Your task to perform on an android device: Open display settings Image 0: 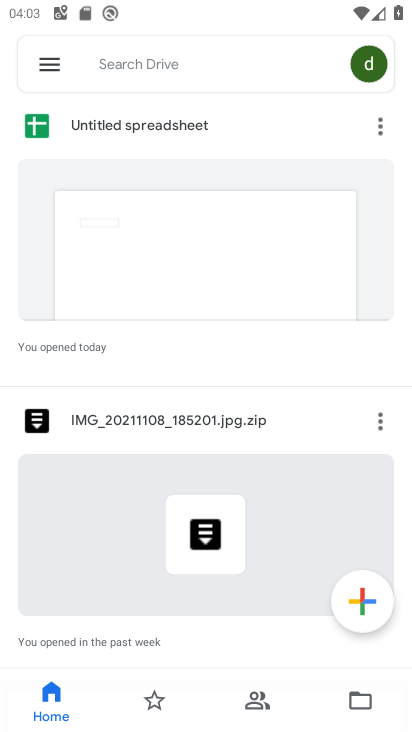
Step 0: press home button
Your task to perform on an android device: Open display settings Image 1: 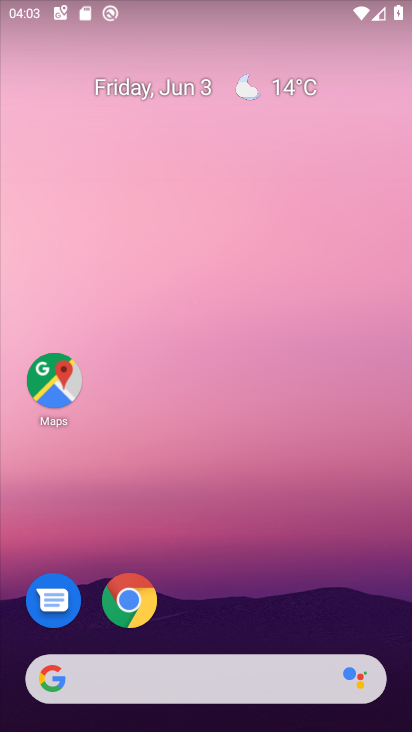
Step 1: drag from (236, 582) to (235, 156)
Your task to perform on an android device: Open display settings Image 2: 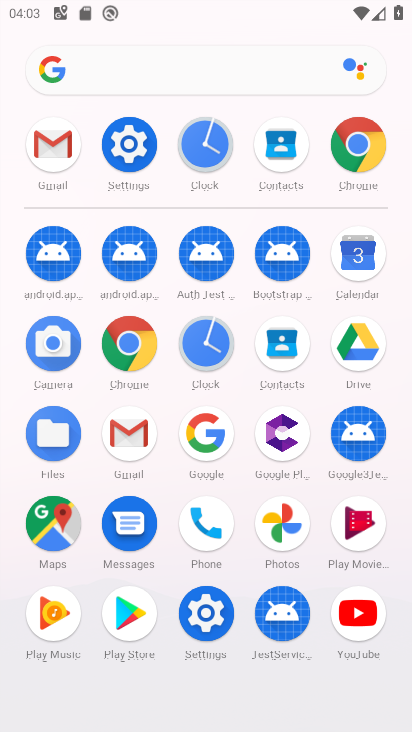
Step 2: click (137, 137)
Your task to perform on an android device: Open display settings Image 3: 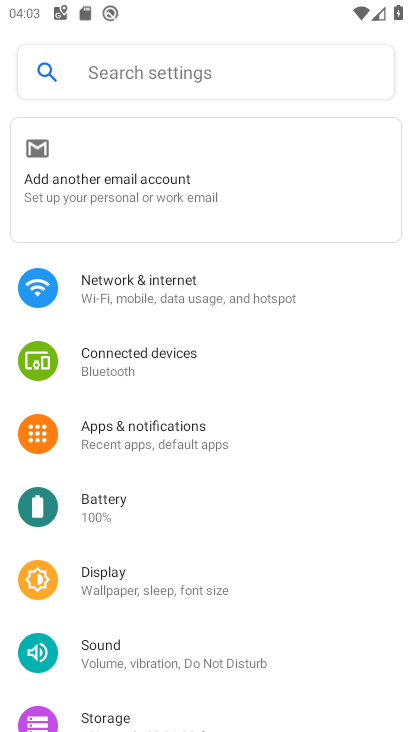
Step 3: click (144, 584)
Your task to perform on an android device: Open display settings Image 4: 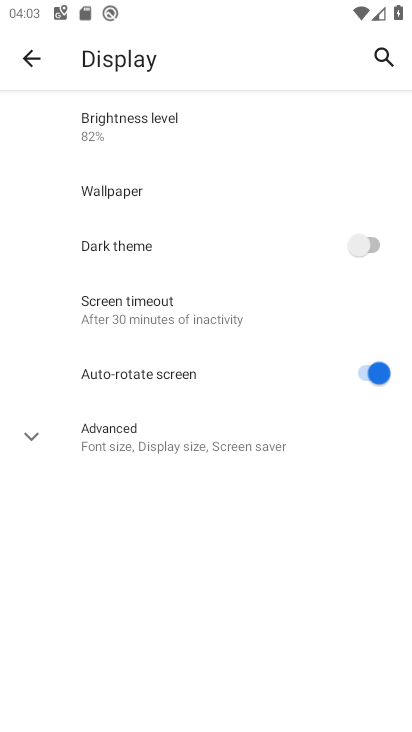
Step 4: task complete